Your task to perform on an android device: Show me productivity apps on the Play Store Image 0: 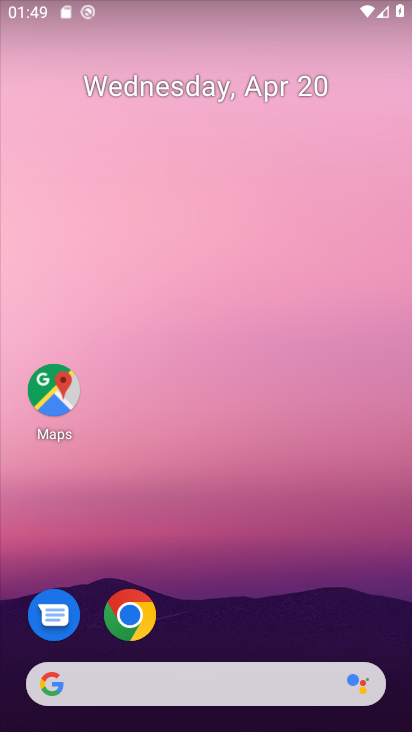
Step 0: drag from (352, 558) to (335, 118)
Your task to perform on an android device: Show me productivity apps on the Play Store Image 1: 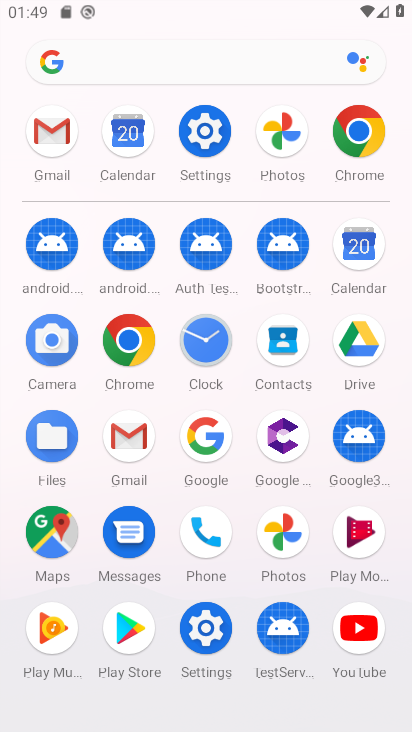
Step 1: click (134, 613)
Your task to perform on an android device: Show me productivity apps on the Play Store Image 2: 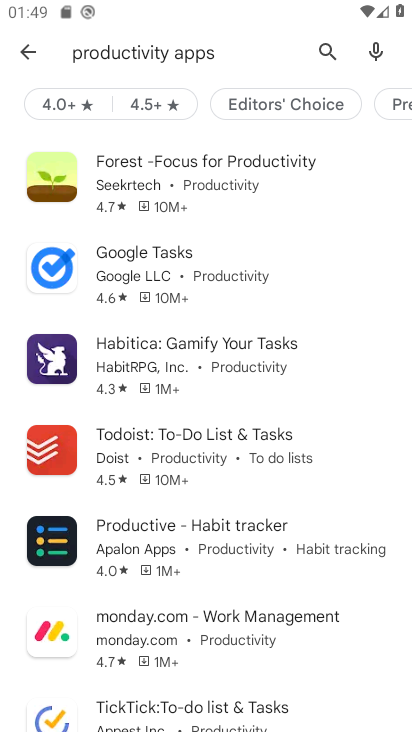
Step 2: task complete